Your task to perform on an android device: Open ESPN.com Image 0: 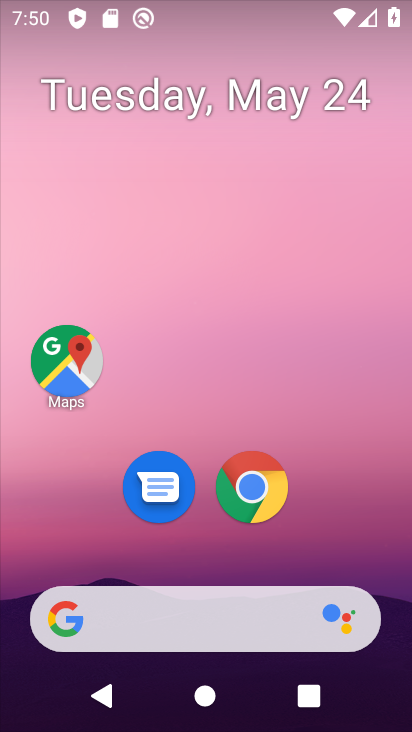
Step 0: click (225, 504)
Your task to perform on an android device: Open ESPN.com Image 1: 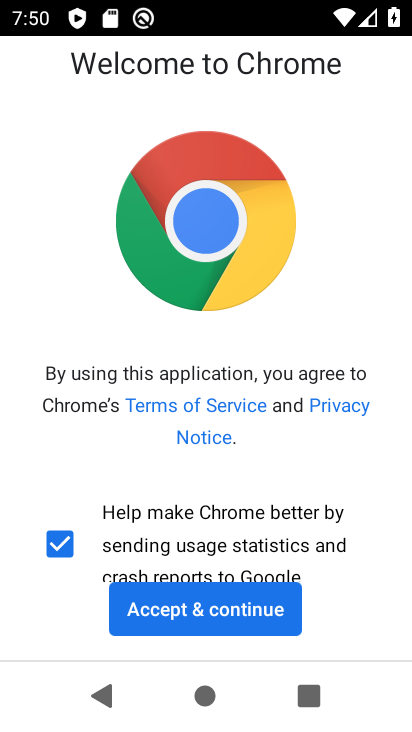
Step 1: click (259, 612)
Your task to perform on an android device: Open ESPN.com Image 2: 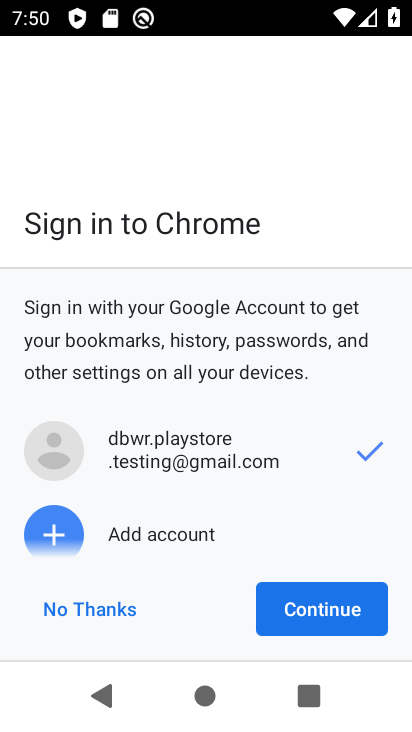
Step 2: click (58, 616)
Your task to perform on an android device: Open ESPN.com Image 3: 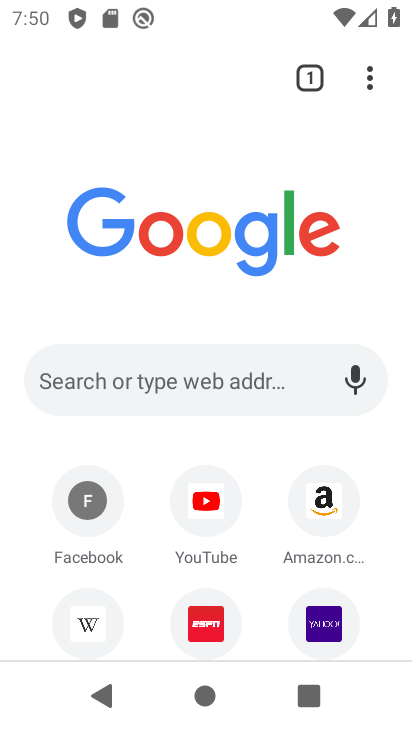
Step 3: drag from (1, 546) to (107, 253)
Your task to perform on an android device: Open ESPN.com Image 4: 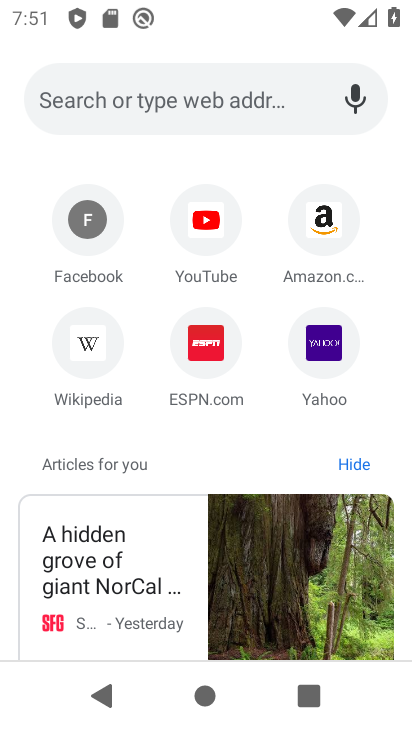
Step 4: click (207, 95)
Your task to perform on an android device: Open ESPN.com Image 5: 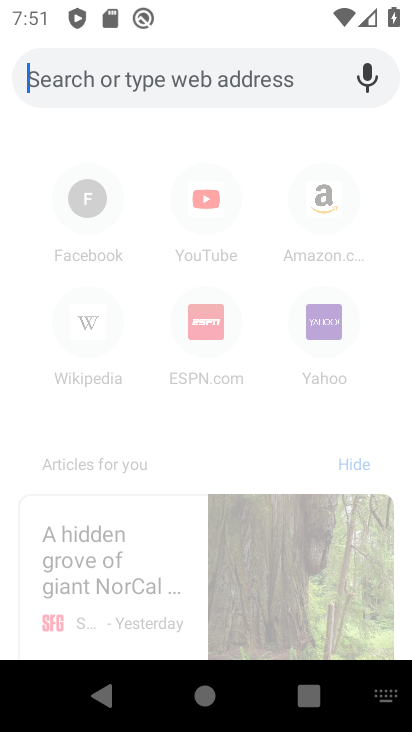
Step 5: type "ESPN.com"
Your task to perform on an android device: Open ESPN.com Image 6: 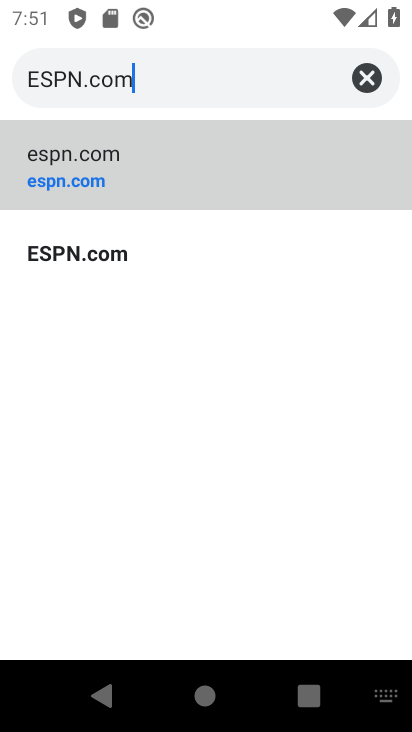
Step 6: type ""
Your task to perform on an android device: Open ESPN.com Image 7: 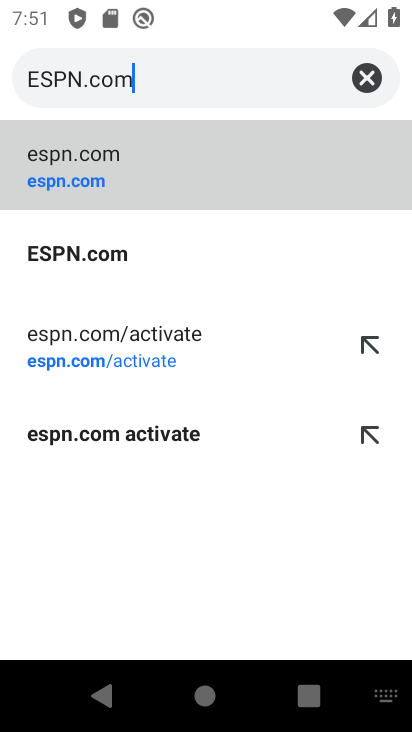
Step 7: click (136, 257)
Your task to perform on an android device: Open ESPN.com Image 8: 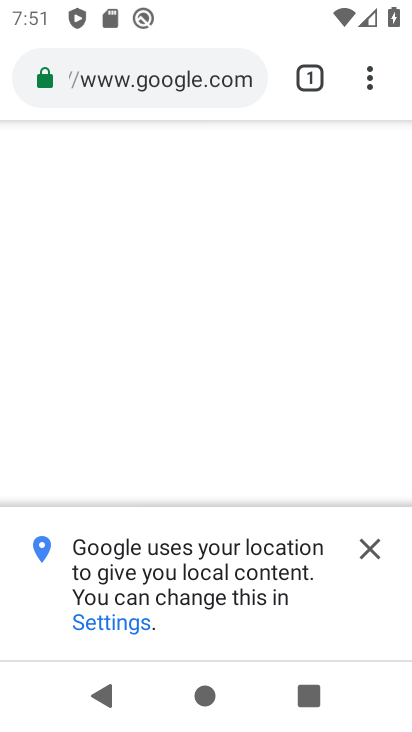
Step 8: click (370, 551)
Your task to perform on an android device: Open ESPN.com Image 9: 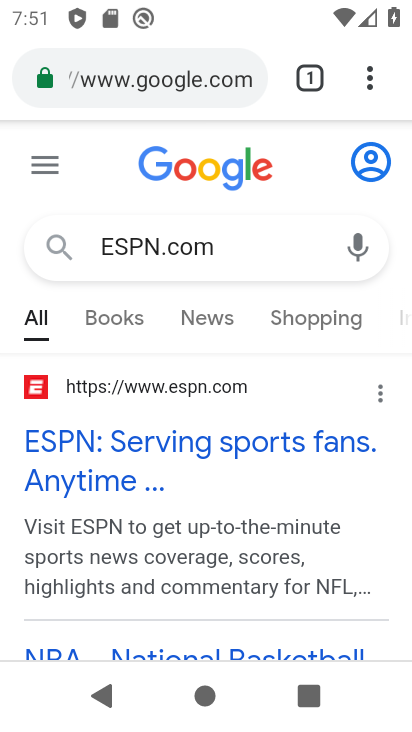
Step 9: click (143, 452)
Your task to perform on an android device: Open ESPN.com Image 10: 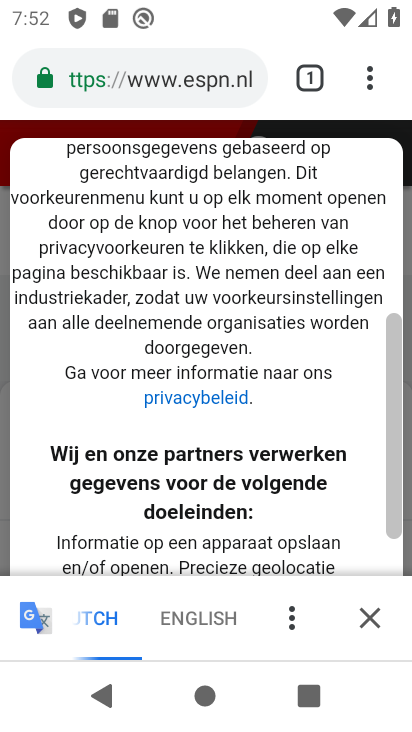
Step 10: task complete